Your task to perform on an android device: Open Google Chrome and click the shortcut for Amazon.com Image 0: 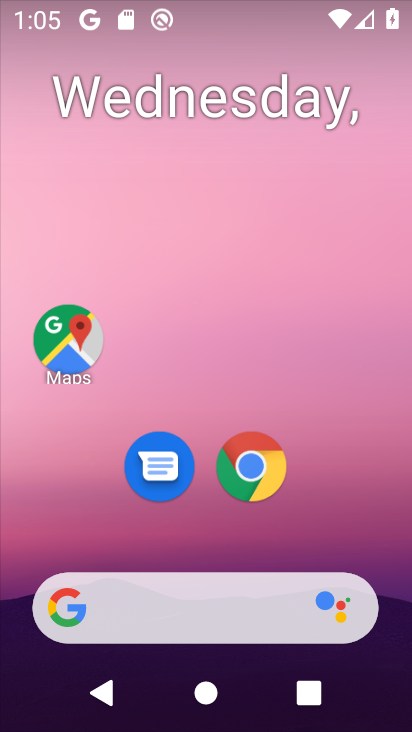
Step 0: click (241, 492)
Your task to perform on an android device: Open Google Chrome and click the shortcut for Amazon.com Image 1: 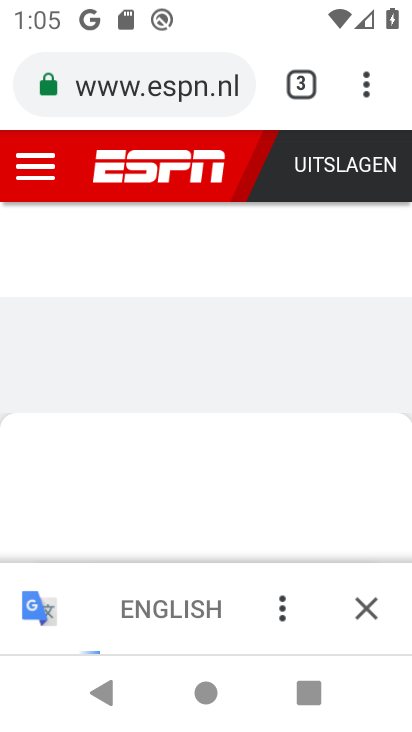
Step 1: click (297, 83)
Your task to perform on an android device: Open Google Chrome and click the shortcut for Amazon.com Image 2: 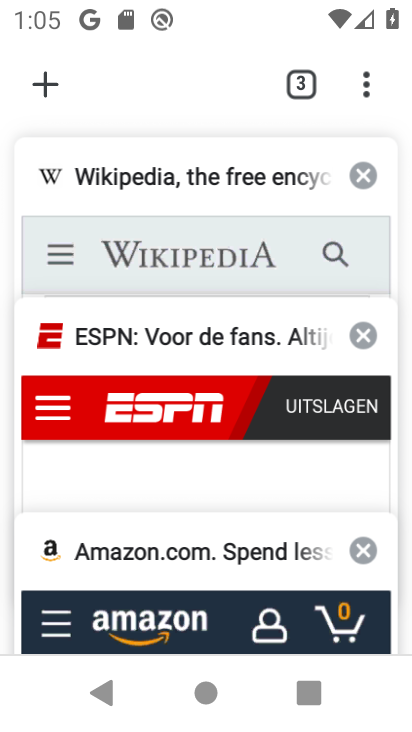
Step 2: click (42, 76)
Your task to perform on an android device: Open Google Chrome and click the shortcut for Amazon.com Image 3: 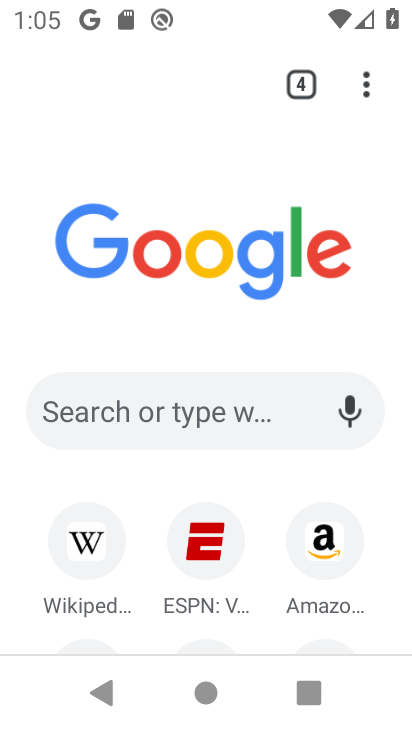
Step 3: click (292, 74)
Your task to perform on an android device: Open Google Chrome and click the shortcut for Amazon.com Image 4: 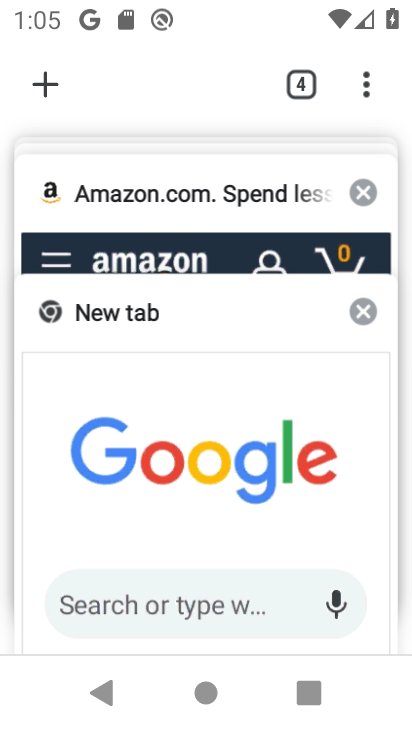
Step 4: click (200, 223)
Your task to perform on an android device: Open Google Chrome and click the shortcut for Amazon.com Image 5: 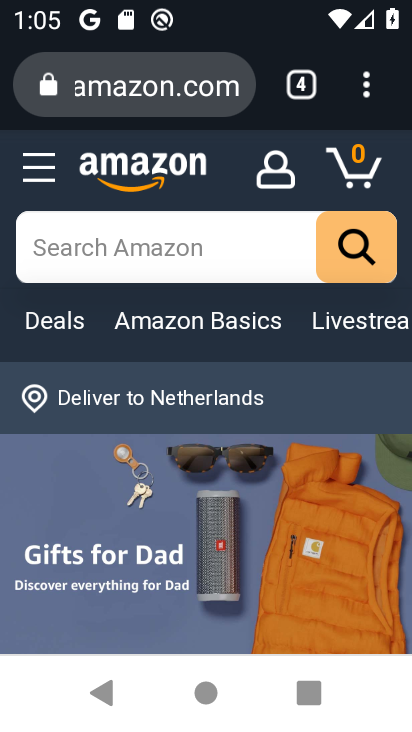
Step 5: task complete